Your task to perform on an android device: toggle wifi Image 0: 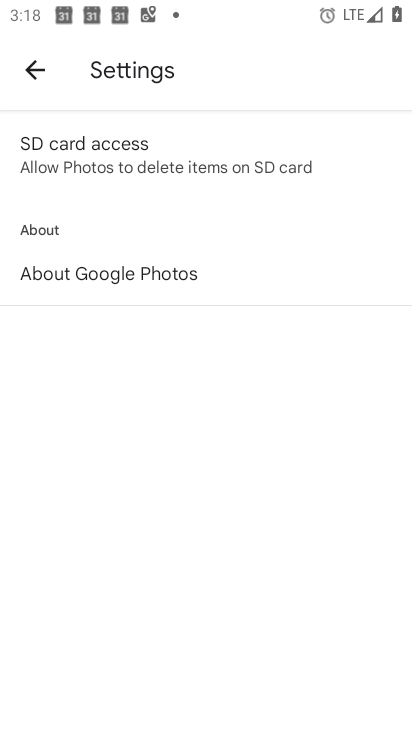
Step 0: press home button
Your task to perform on an android device: toggle wifi Image 1: 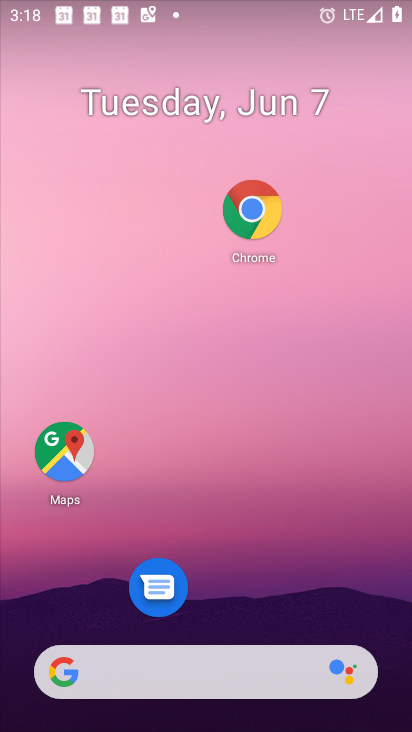
Step 1: drag from (240, 502) to (285, 235)
Your task to perform on an android device: toggle wifi Image 2: 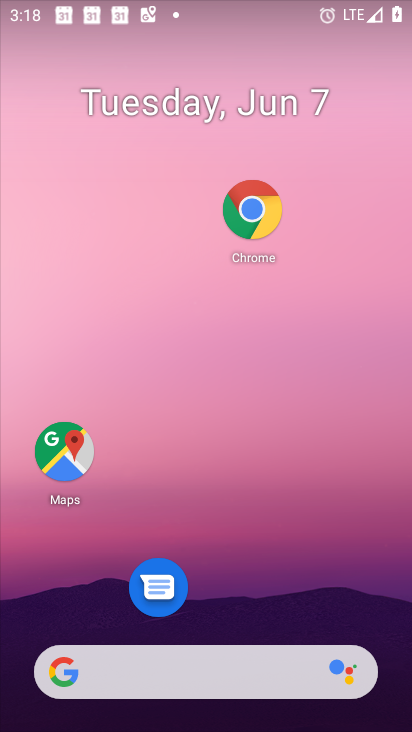
Step 2: drag from (214, 621) to (142, 71)
Your task to perform on an android device: toggle wifi Image 3: 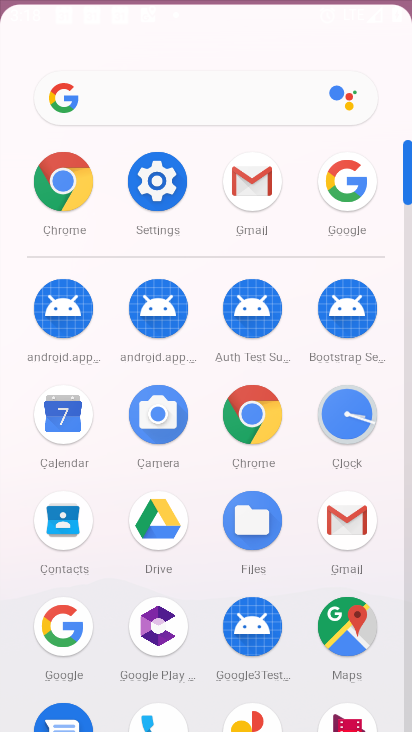
Step 3: click (159, 208)
Your task to perform on an android device: toggle wifi Image 4: 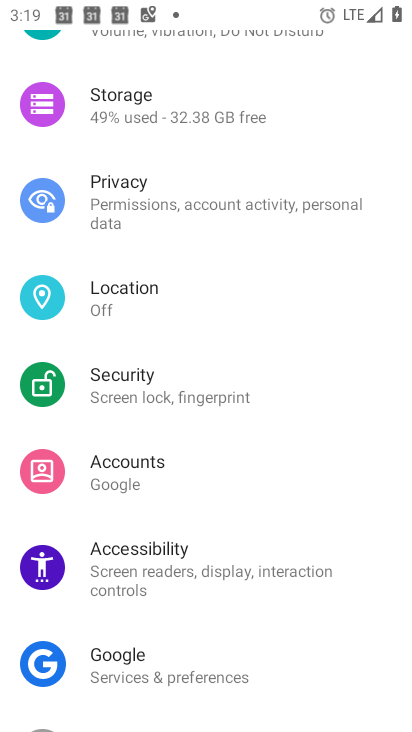
Step 4: drag from (210, 301) to (221, 683)
Your task to perform on an android device: toggle wifi Image 5: 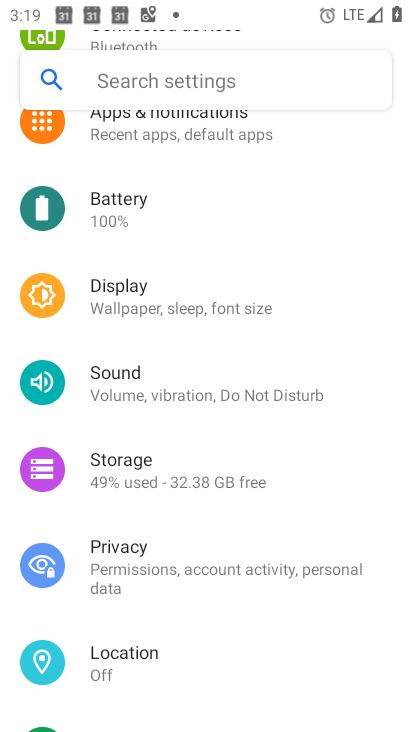
Step 5: drag from (197, 261) to (186, 640)
Your task to perform on an android device: toggle wifi Image 6: 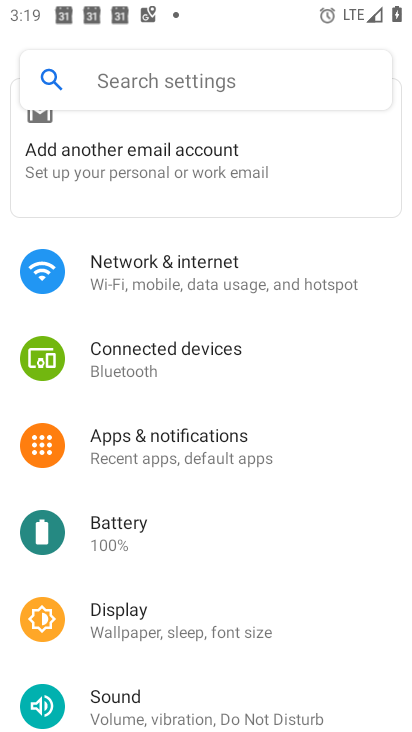
Step 6: click (206, 277)
Your task to perform on an android device: toggle wifi Image 7: 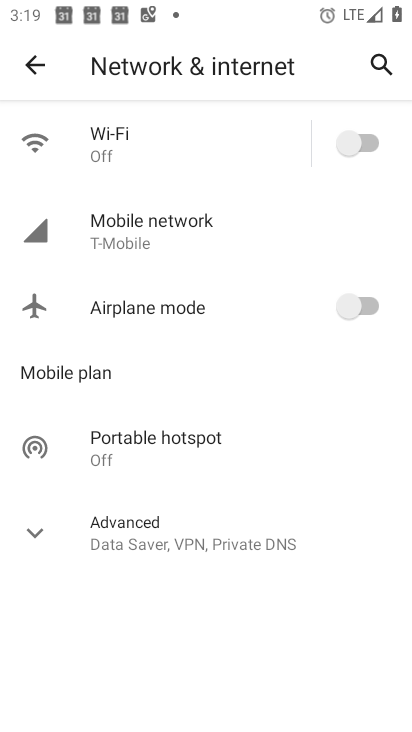
Step 7: click (375, 142)
Your task to perform on an android device: toggle wifi Image 8: 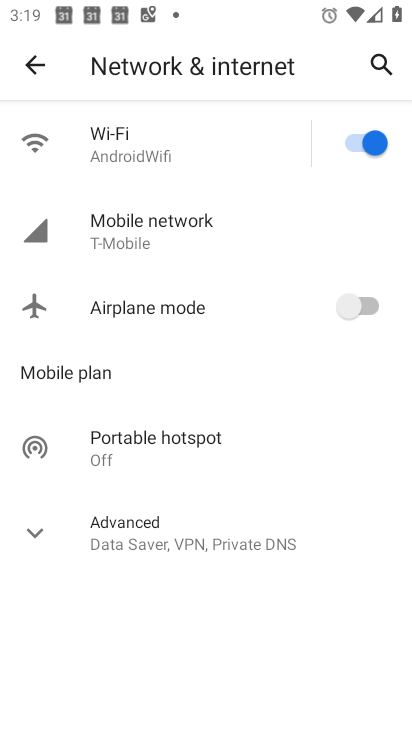
Step 8: task complete